Your task to perform on an android device: change the clock style Image 0: 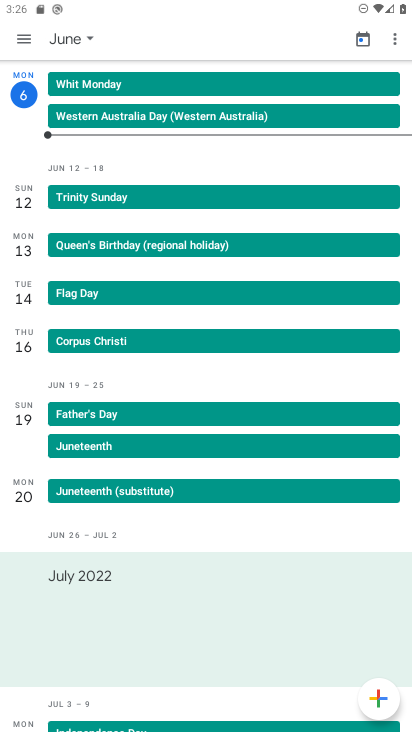
Step 0: press home button
Your task to perform on an android device: change the clock style Image 1: 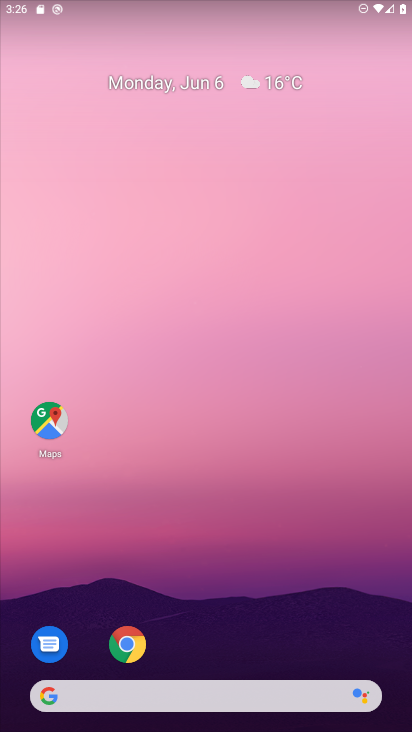
Step 1: drag from (261, 585) to (225, 97)
Your task to perform on an android device: change the clock style Image 2: 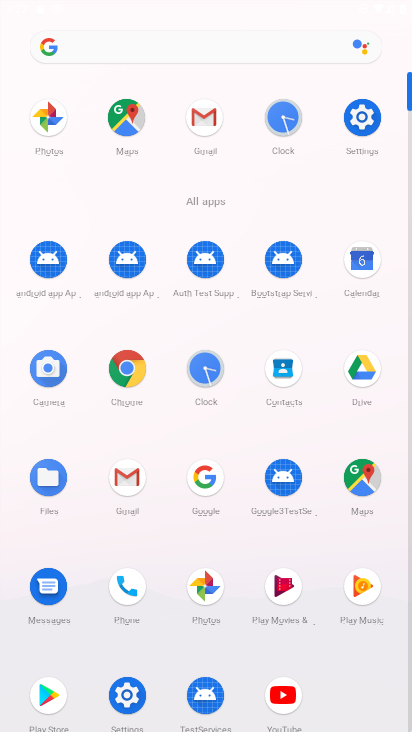
Step 2: click (282, 120)
Your task to perform on an android device: change the clock style Image 3: 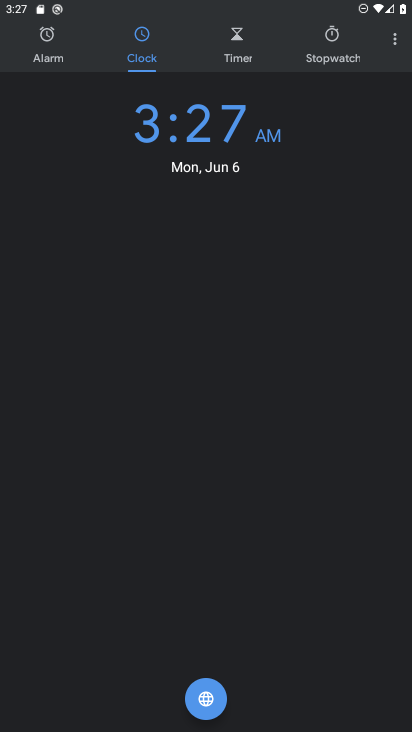
Step 3: click (393, 38)
Your task to perform on an android device: change the clock style Image 4: 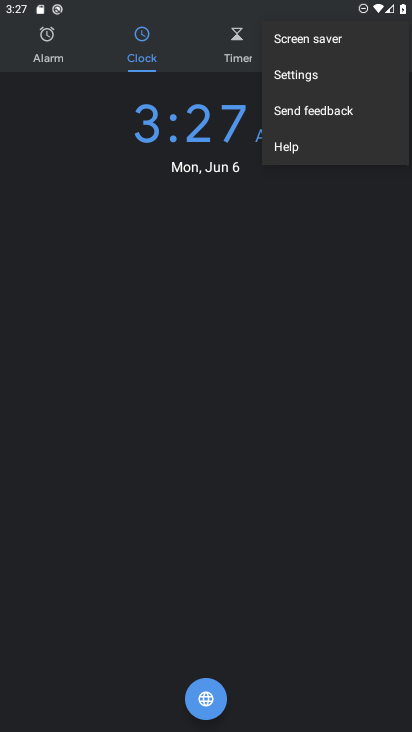
Step 4: click (294, 82)
Your task to perform on an android device: change the clock style Image 5: 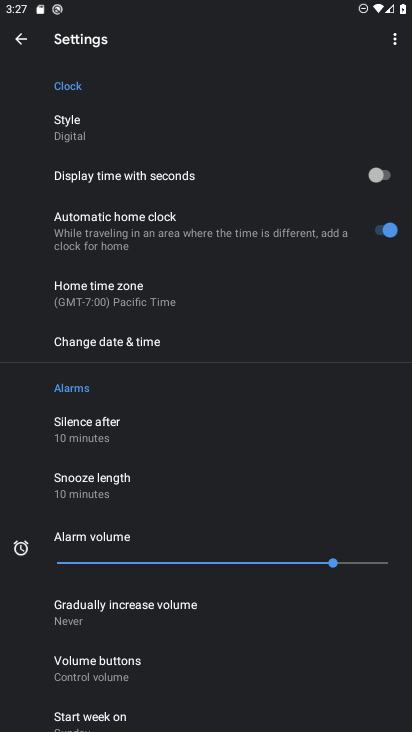
Step 5: click (79, 138)
Your task to perform on an android device: change the clock style Image 6: 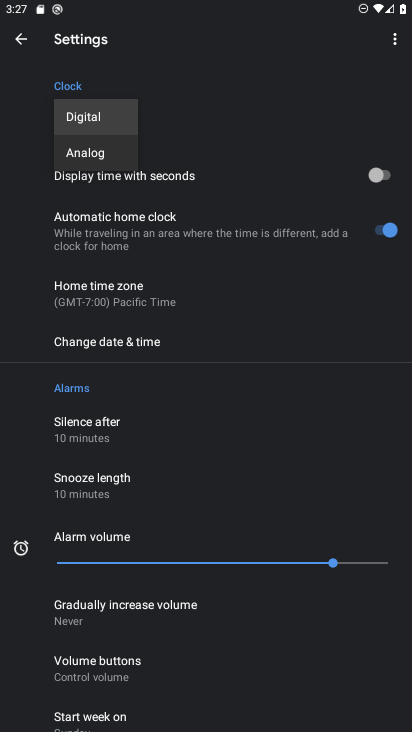
Step 6: click (100, 151)
Your task to perform on an android device: change the clock style Image 7: 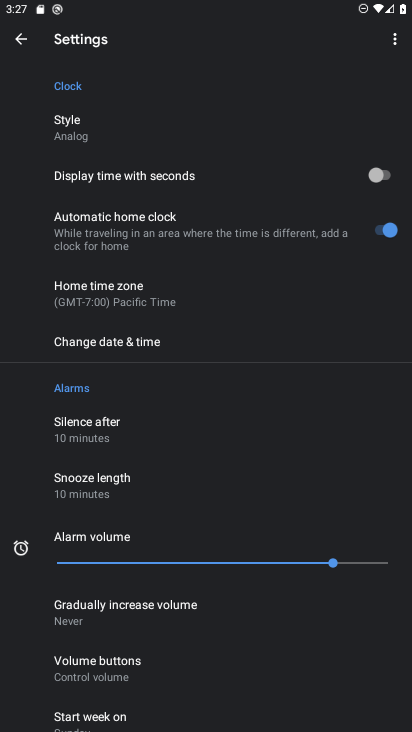
Step 7: task complete